Your task to perform on an android device: turn off priority inbox in the gmail app Image 0: 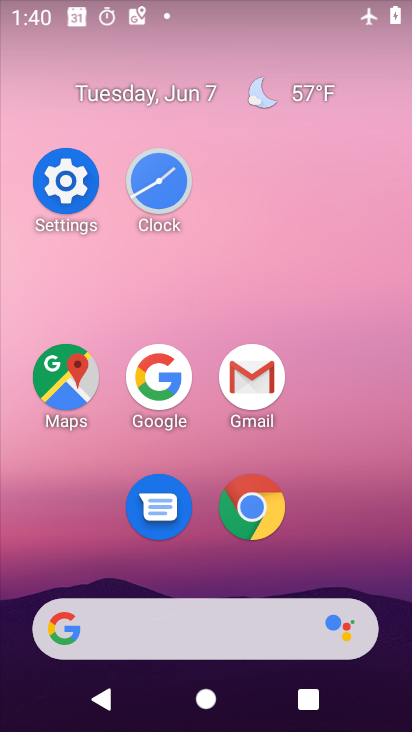
Step 0: click (251, 371)
Your task to perform on an android device: turn off priority inbox in the gmail app Image 1: 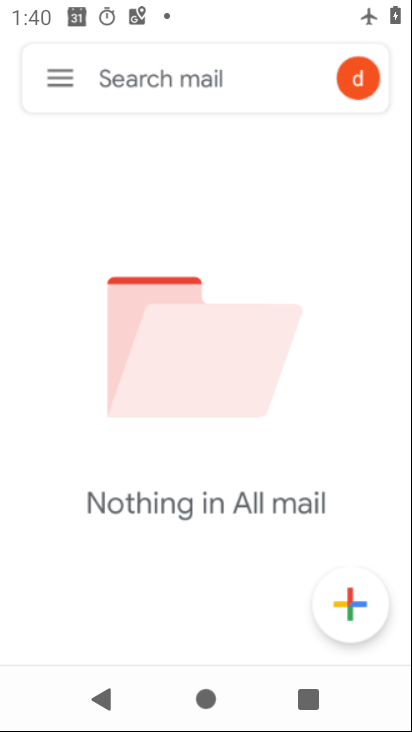
Step 1: click (47, 89)
Your task to perform on an android device: turn off priority inbox in the gmail app Image 2: 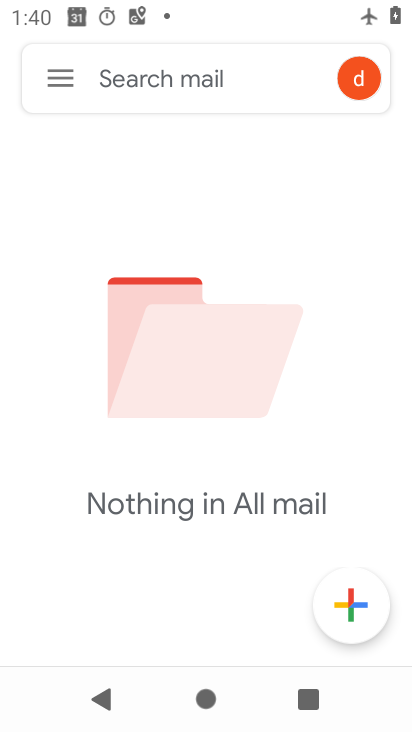
Step 2: click (59, 73)
Your task to perform on an android device: turn off priority inbox in the gmail app Image 3: 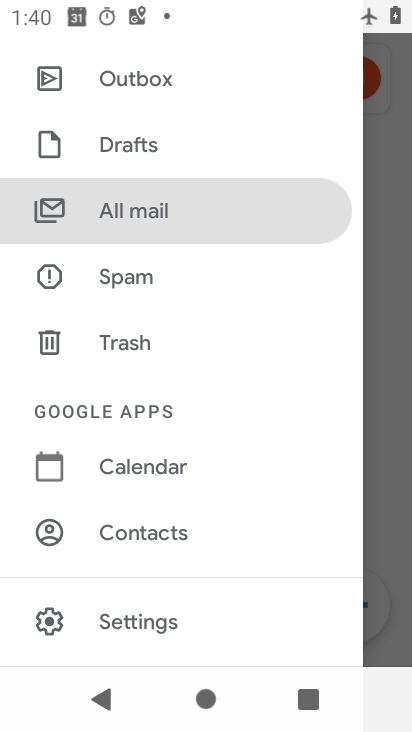
Step 3: click (209, 607)
Your task to perform on an android device: turn off priority inbox in the gmail app Image 4: 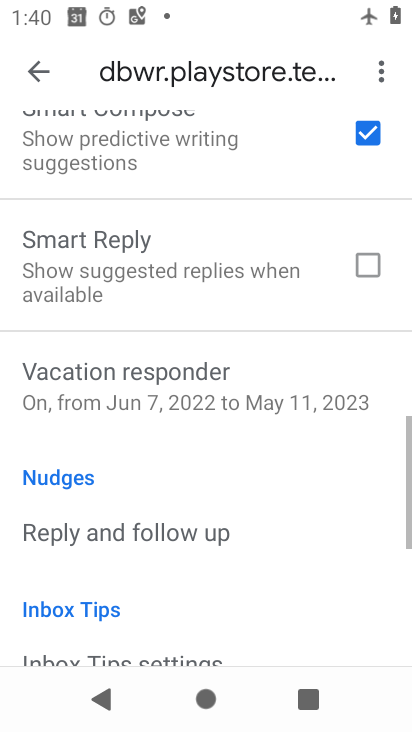
Step 4: drag from (200, 304) to (212, 658)
Your task to perform on an android device: turn off priority inbox in the gmail app Image 5: 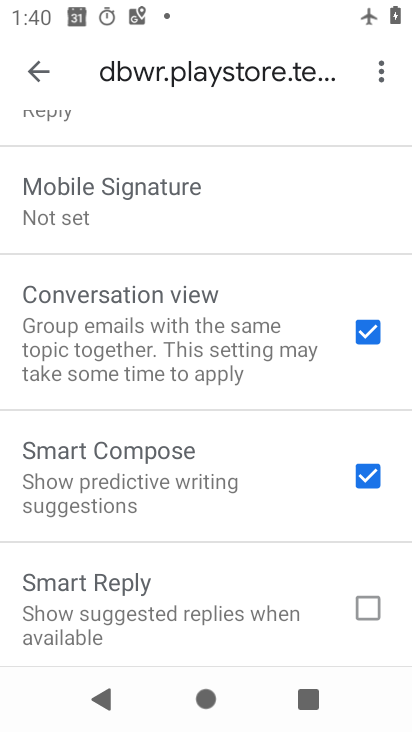
Step 5: drag from (172, 190) to (205, 662)
Your task to perform on an android device: turn off priority inbox in the gmail app Image 6: 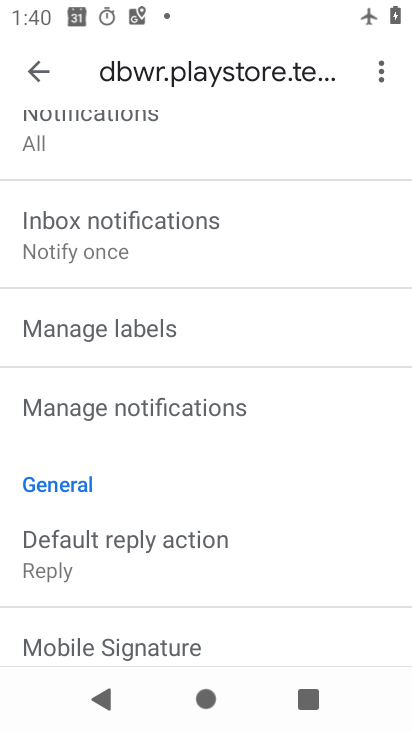
Step 6: drag from (227, 218) to (253, 522)
Your task to perform on an android device: turn off priority inbox in the gmail app Image 7: 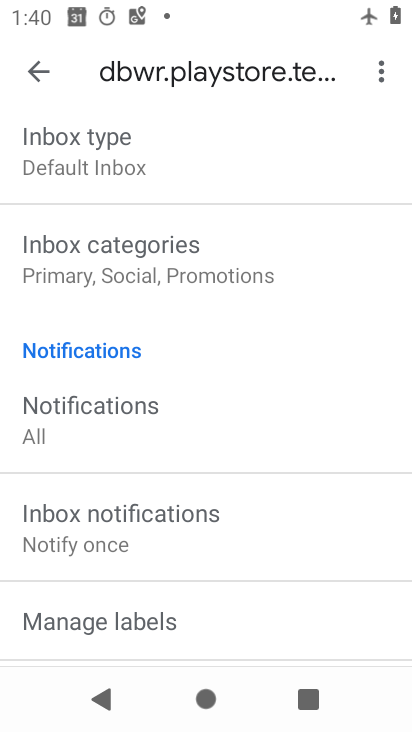
Step 7: click (178, 150)
Your task to perform on an android device: turn off priority inbox in the gmail app Image 8: 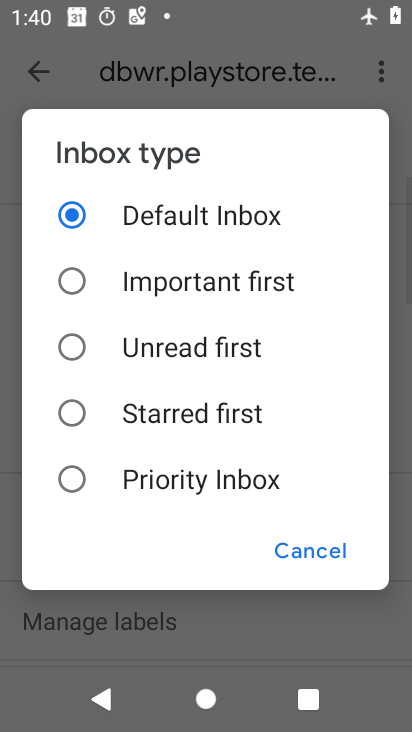
Step 8: task complete